Your task to perform on an android device: change the clock display to show seconds Image 0: 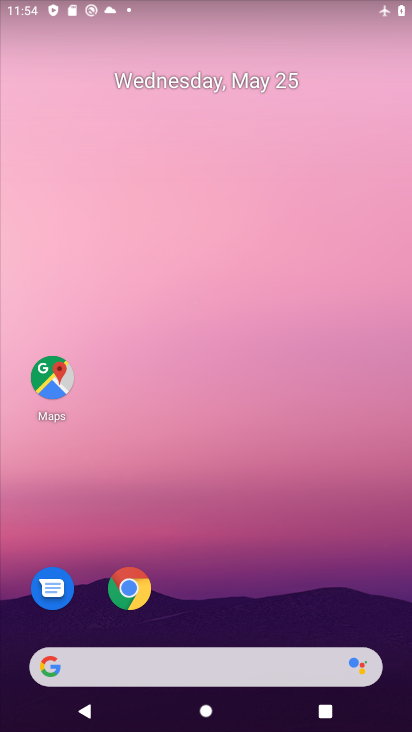
Step 0: drag from (208, 593) to (234, 254)
Your task to perform on an android device: change the clock display to show seconds Image 1: 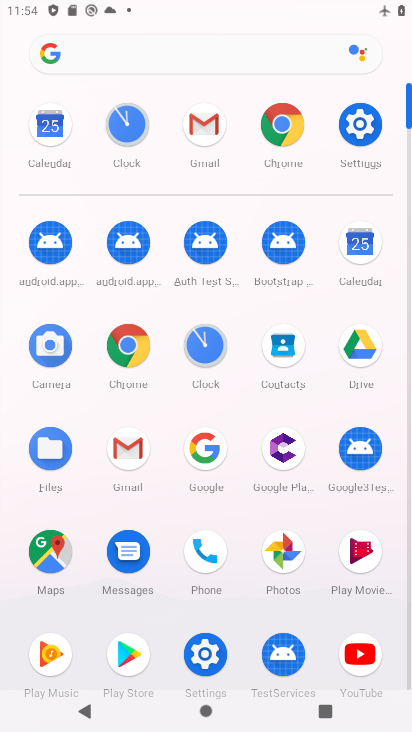
Step 1: click (203, 348)
Your task to perform on an android device: change the clock display to show seconds Image 2: 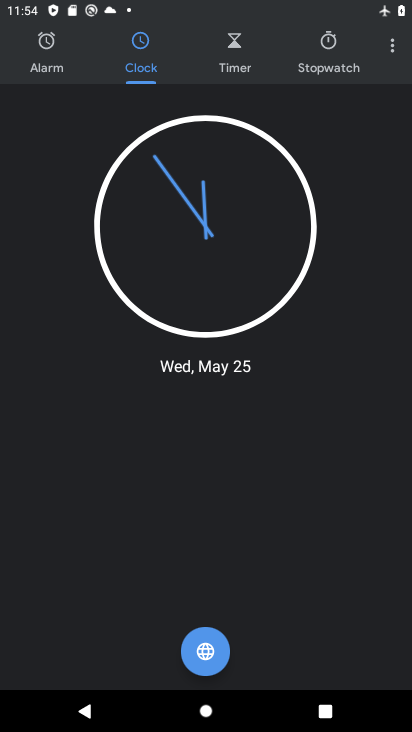
Step 2: click (393, 48)
Your task to perform on an android device: change the clock display to show seconds Image 3: 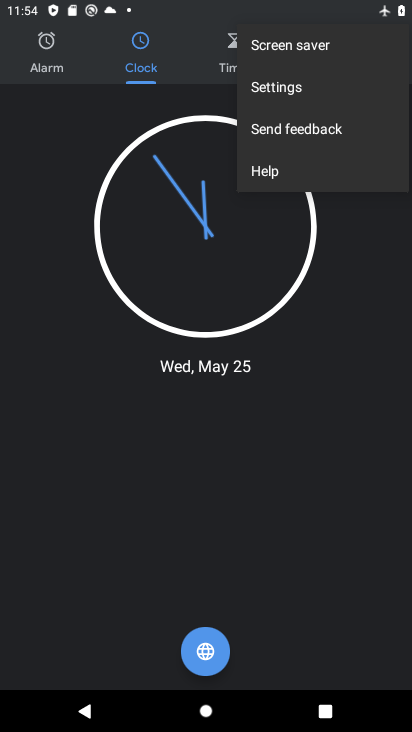
Step 3: click (295, 86)
Your task to perform on an android device: change the clock display to show seconds Image 4: 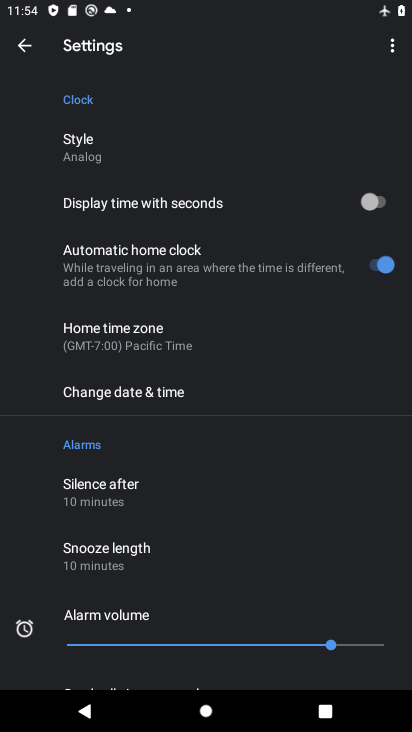
Step 4: click (382, 205)
Your task to perform on an android device: change the clock display to show seconds Image 5: 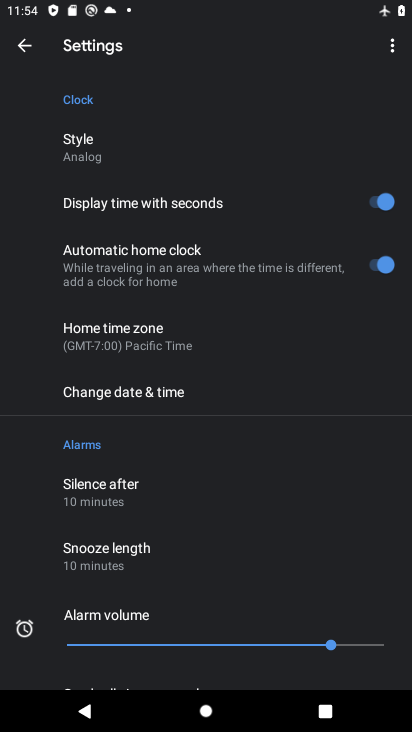
Step 5: task complete